Your task to perform on an android device: allow cookies in the chrome app Image 0: 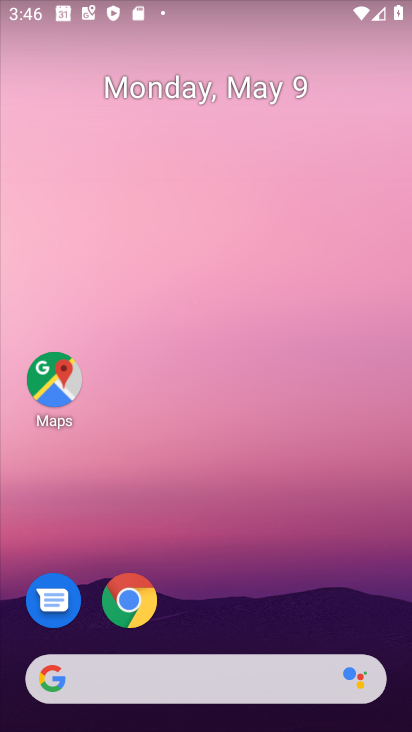
Step 0: drag from (255, 656) to (256, 6)
Your task to perform on an android device: allow cookies in the chrome app Image 1: 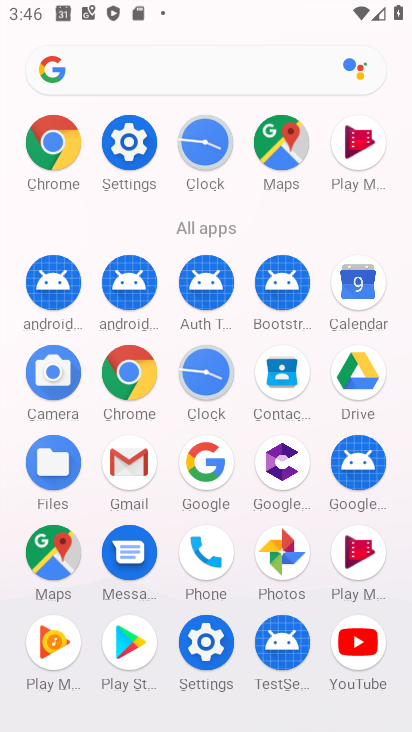
Step 1: click (132, 388)
Your task to perform on an android device: allow cookies in the chrome app Image 2: 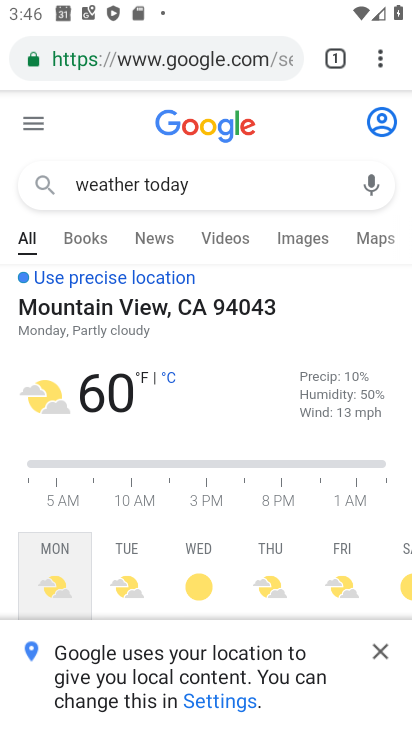
Step 2: click (382, 43)
Your task to perform on an android device: allow cookies in the chrome app Image 3: 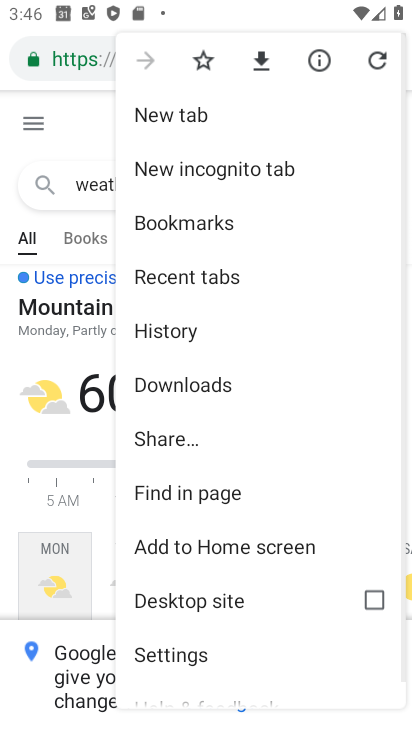
Step 3: drag from (237, 651) to (242, 222)
Your task to perform on an android device: allow cookies in the chrome app Image 4: 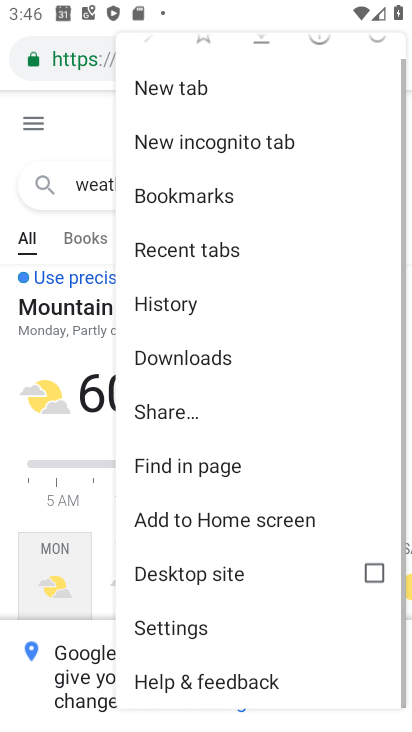
Step 4: click (222, 636)
Your task to perform on an android device: allow cookies in the chrome app Image 5: 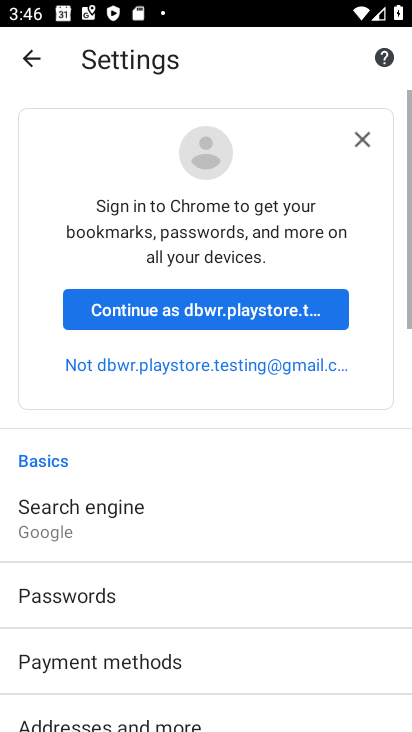
Step 5: drag from (283, 623) to (288, 62)
Your task to perform on an android device: allow cookies in the chrome app Image 6: 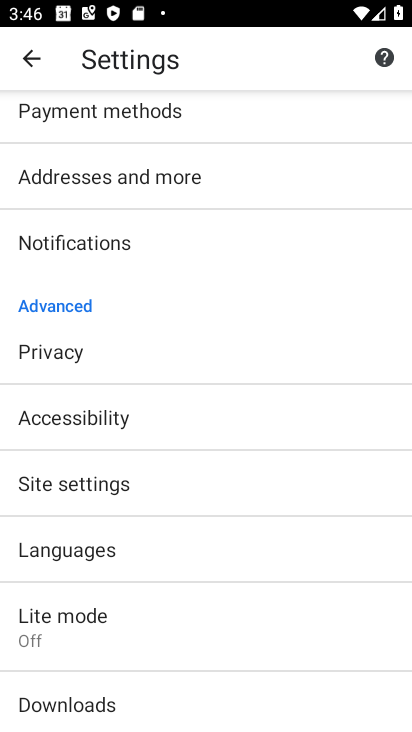
Step 6: click (171, 479)
Your task to perform on an android device: allow cookies in the chrome app Image 7: 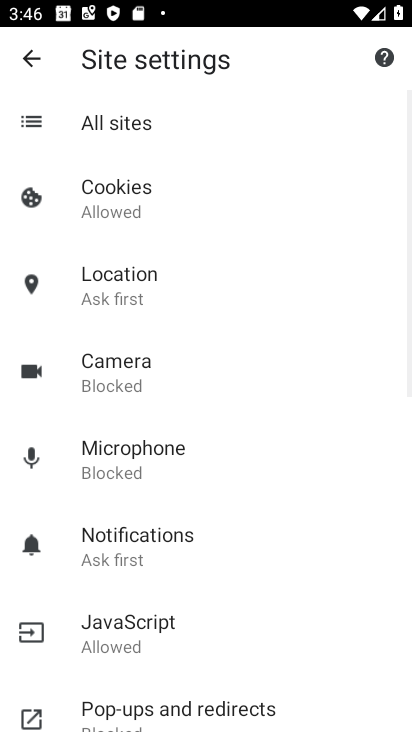
Step 7: click (129, 202)
Your task to perform on an android device: allow cookies in the chrome app Image 8: 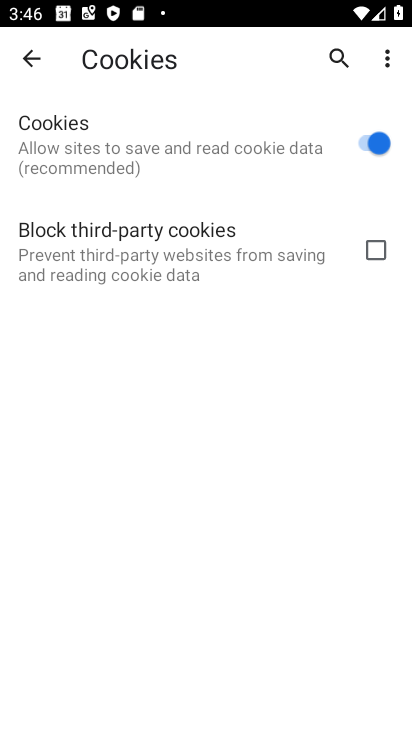
Step 8: task complete